Your task to perform on an android device: Go to ESPN.com Image 0: 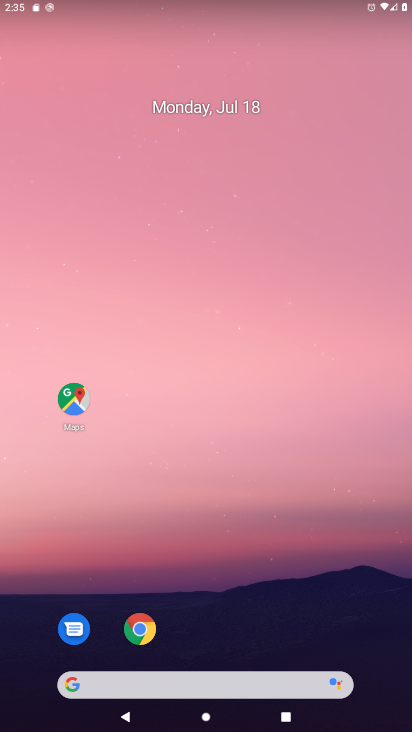
Step 0: click (143, 634)
Your task to perform on an android device: Go to ESPN.com Image 1: 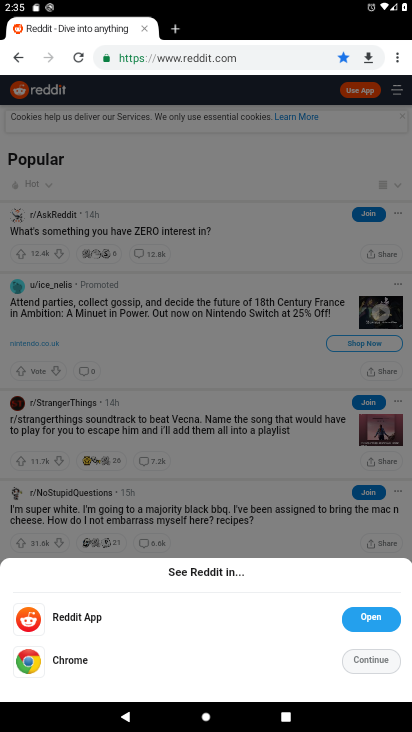
Step 1: click (204, 51)
Your task to perform on an android device: Go to ESPN.com Image 2: 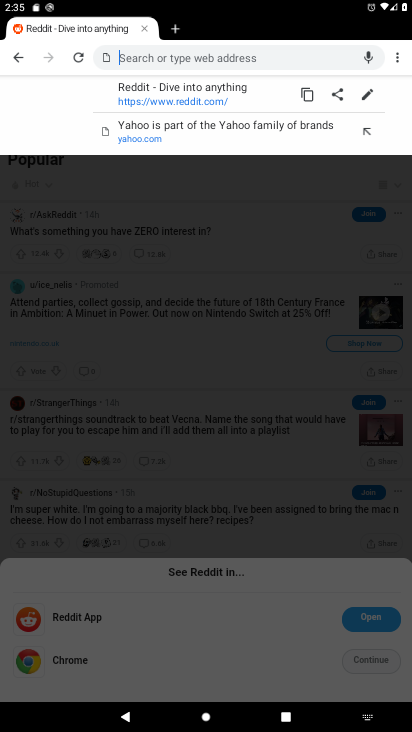
Step 2: type "www.espn.com"
Your task to perform on an android device: Go to ESPN.com Image 3: 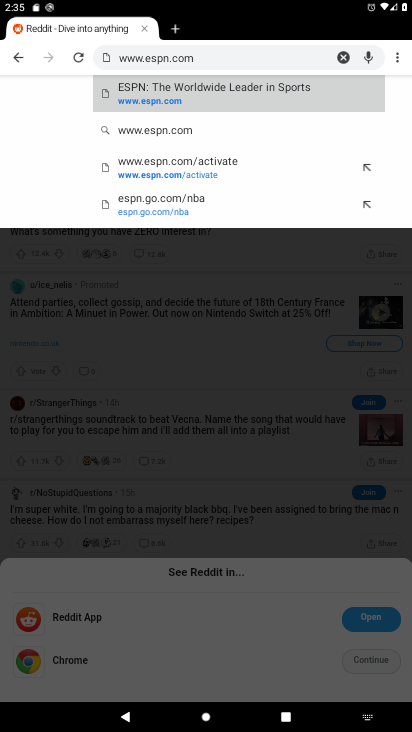
Step 3: click (142, 91)
Your task to perform on an android device: Go to ESPN.com Image 4: 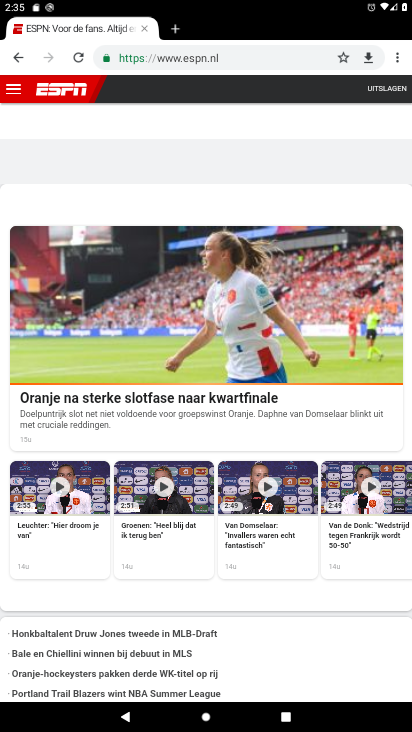
Step 4: task complete